Your task to perform on an android device: turn off airplane mode Image 0: 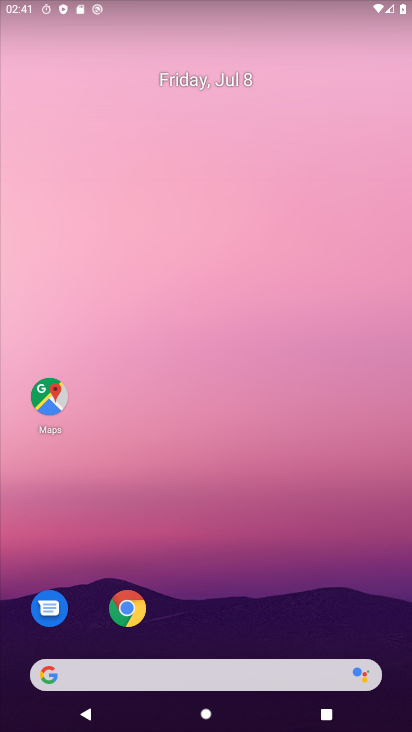
Step 0: drag from (248, 591) to (290, 44)
Your task to perform on an android device: turn off airplane mode Image 1: 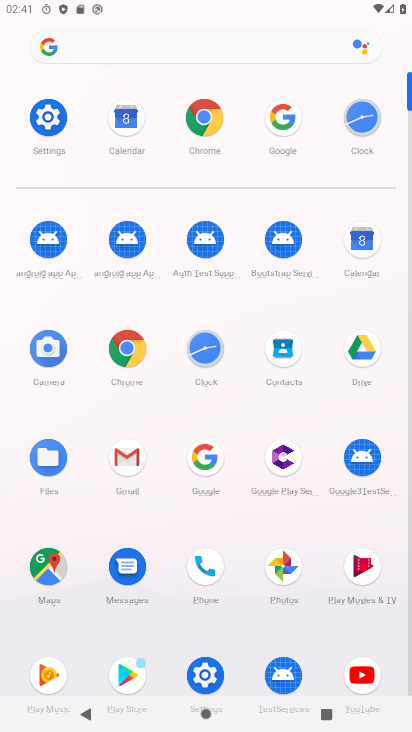
Step 1: click (43, 109)
Your task to perform on an android device: turn off airplane mode Image 2: 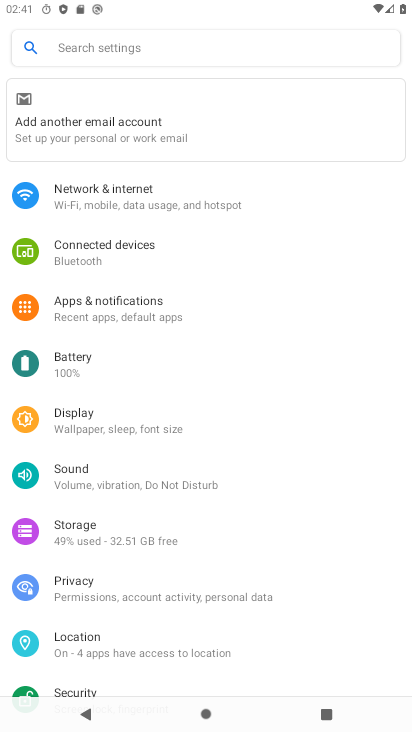
Step 2: click (151, 192)
Your task to perform on an android device: turn off airplane mode Image 3: 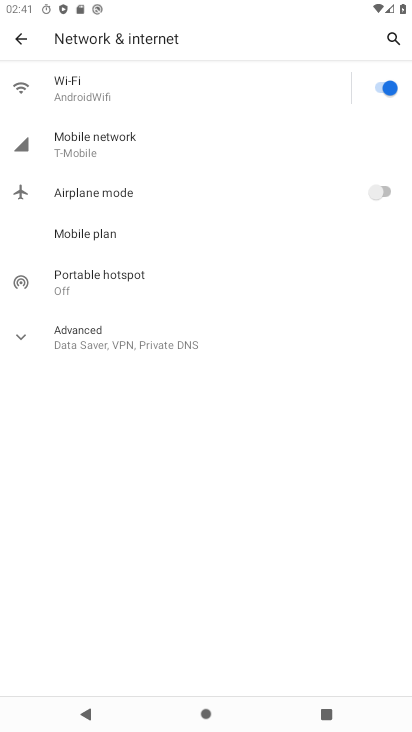
Step 3: task complete